Your task to perform on an android device: Search for Mexican restaurants on Maps Image 0: 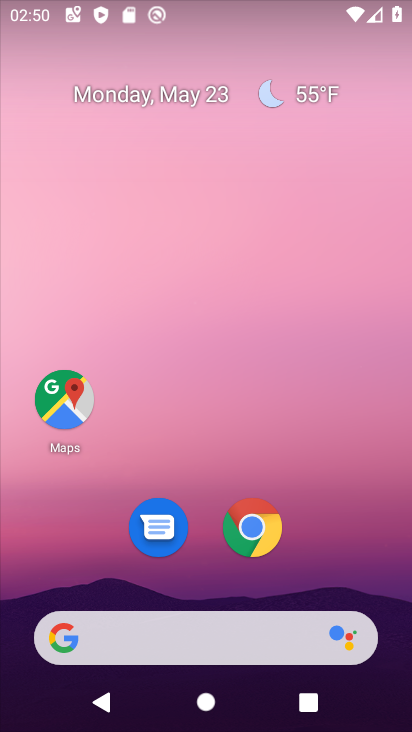
Step 0: drag from (336, 566) to (296, 7)
Your task to perform on an android device: Search for Mexican restaurants on Maps Image 1: 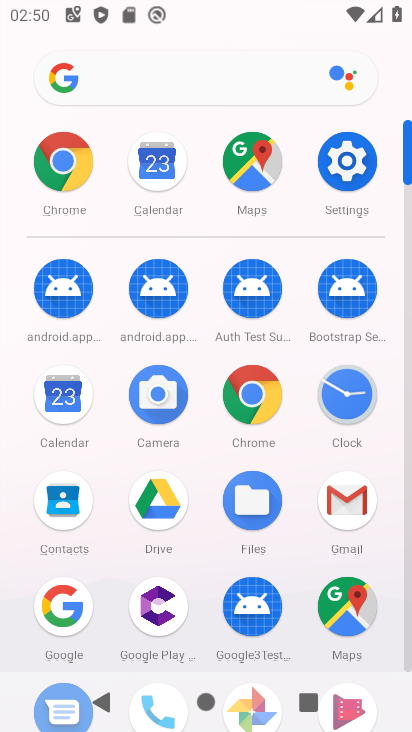
Step 1: drag from (15, 592) to (0, 193)
Your task to perform on an android device: Search for Mexican restaurants on Maps Image 2: 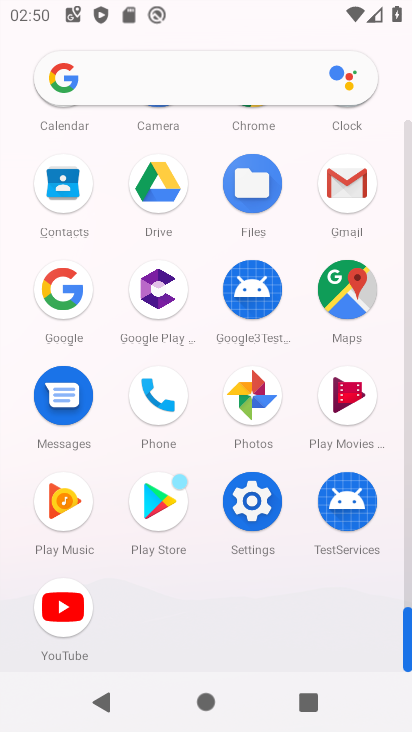
Step 2: click (344, 281)
Your task to perform on an android device: Search for Mexican restaurants on Maps Image 3: 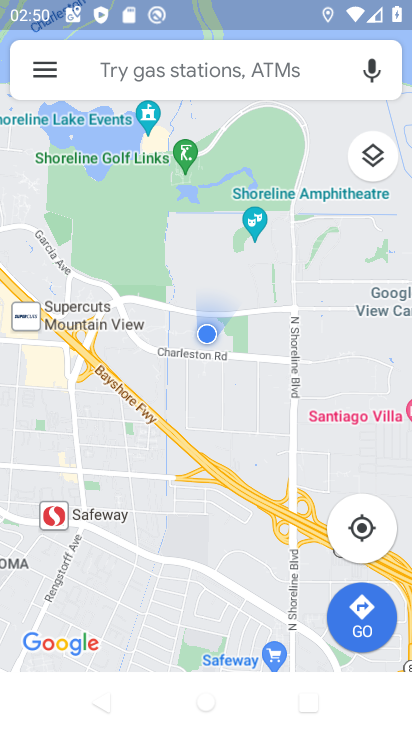
Step 3: click (111, 67)
Your task to perform on an android device: Search for Mexican restaurants on Maps Image 4: 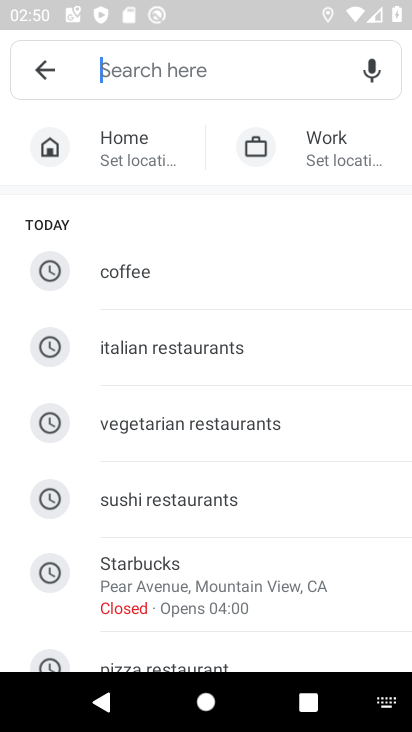
Step 4: drag from (266, 564) to (285, 253)
Your task to perform on an android device: Search for Mexican restaurants on Maps Image 5: 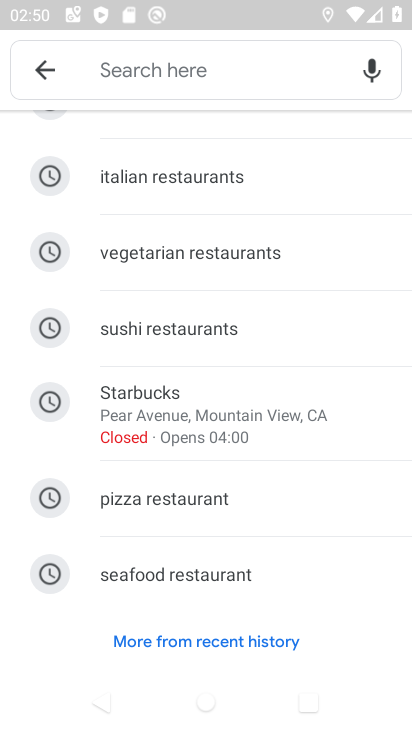
Step 5: drag from (261, 364) to (261, 599)
Your task to perform on an android device: Search for Mexican restaurants on Maps Image 6: 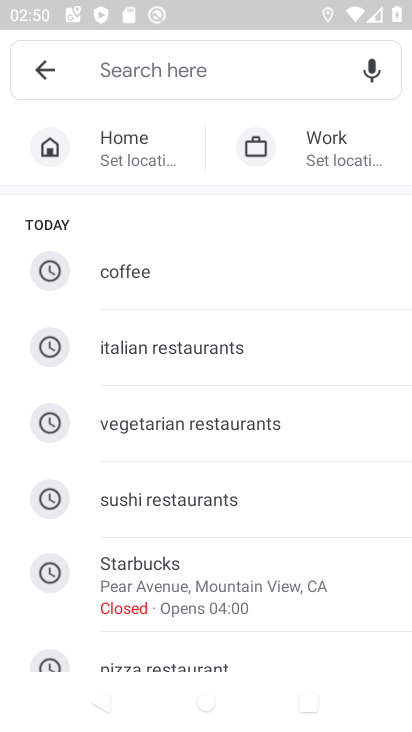
Step 6: click (179, 59)
Your task to perform on an android device: Search for Mexican restaurants on Maps Image 7: 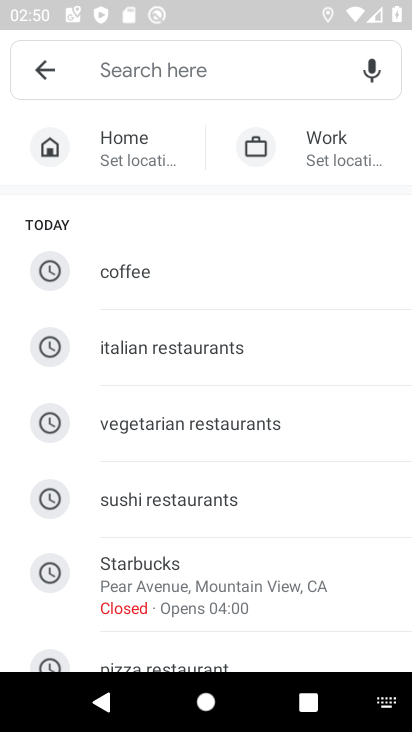
Step 7: type "Mexican restaurants"
Your task to perform on an android device: Search for Mexican restaurants on Maps Image 8: 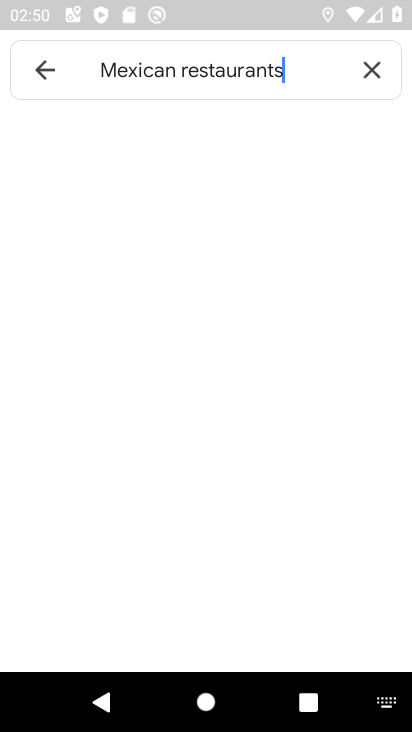
Step 8: type ""
Your task to perform on an android device: Search for Mexican restaurants on Maps Image 9: 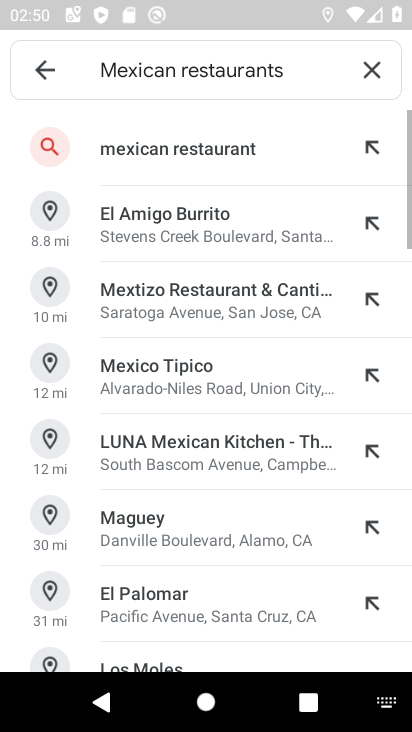
Step 9: click (204, 156)
Your task to perform on an android device: Search for Mexican restaurants on Maps Image 10: 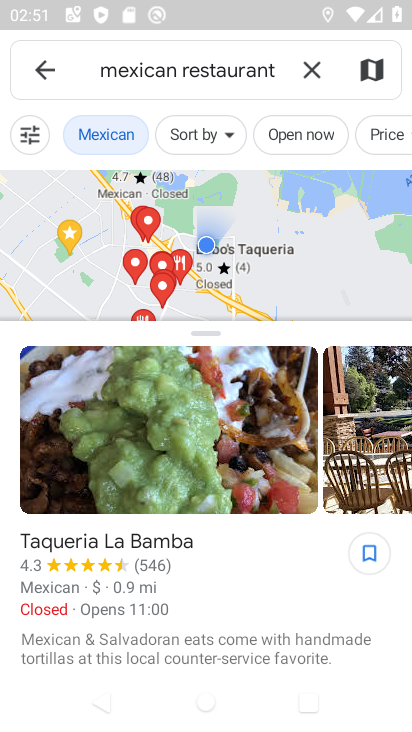
Step 10: task complete